Your task to perform on an android device: What's the weather going to be this weekend? Image 0: 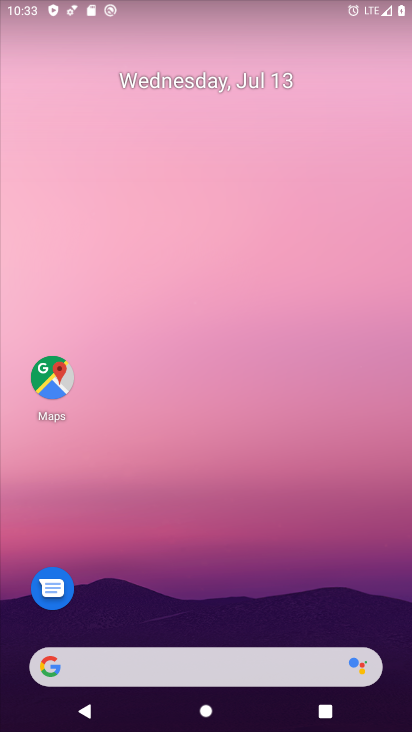
Step 0: click (244, 654)
Your task to perform on an android device: What's the weather going to be this weekend? Image 1: 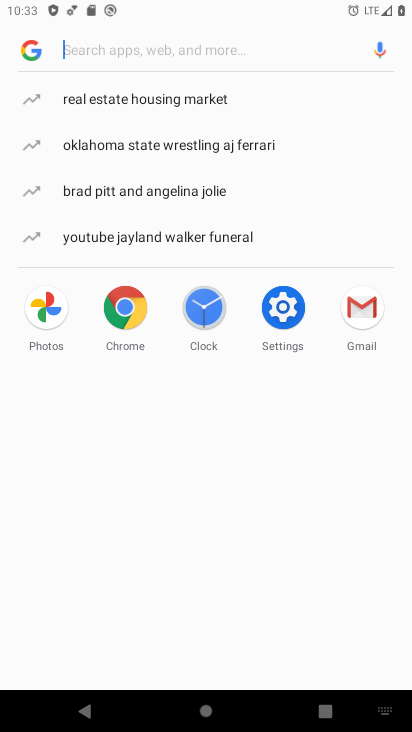
Step 1: type "What's the weather going to be this weekend?"
Your task to perform on an android device: What's the weather going to be this weekend? Image 2: 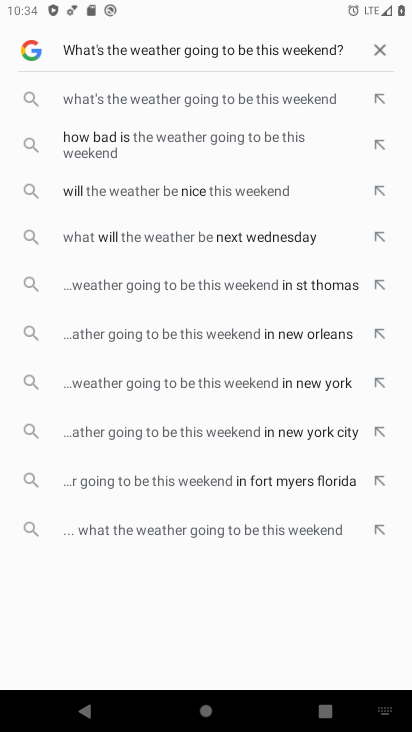
Step 2: press enter
Your task to perform on an android device: What's the weather going to be this weekend? Image 3: 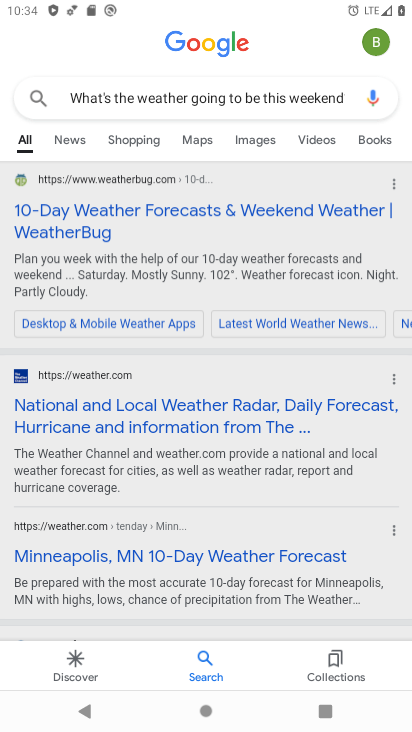
Step 3: task complete